Your task to perform on an android device: turn on javascript in the chrome app Image 0: 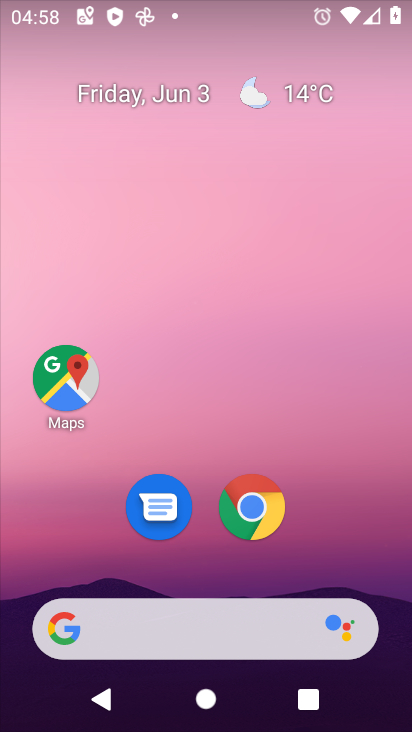
Step 0: click (246, 520)
Your task to perform on an android device: turn on javascript in the chrome app Image 1: 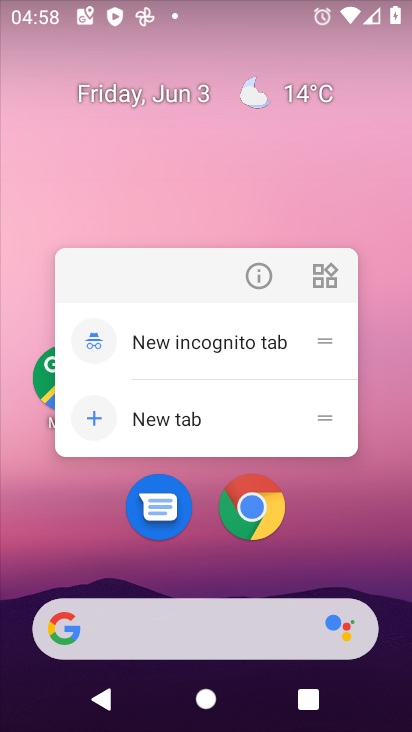
Step 1: click (250, 494)
Your task to perform on an android device: turn on javascript in the chrome app Image 2: 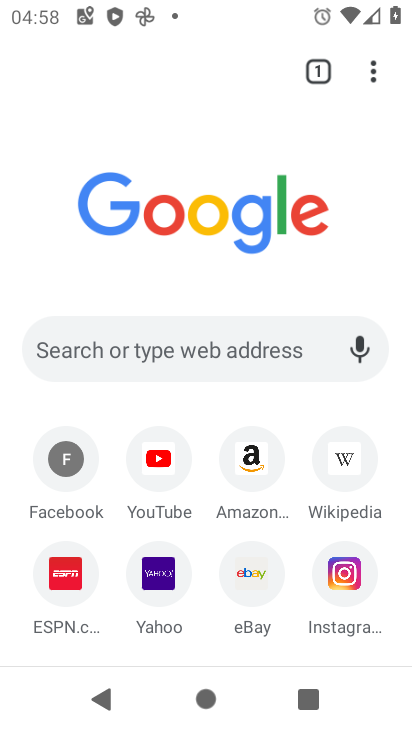
Step 2: drag from (371, 74) to (202, 505)
Your task to perform on an android device: turn on javascript in the chrome app Image 3: 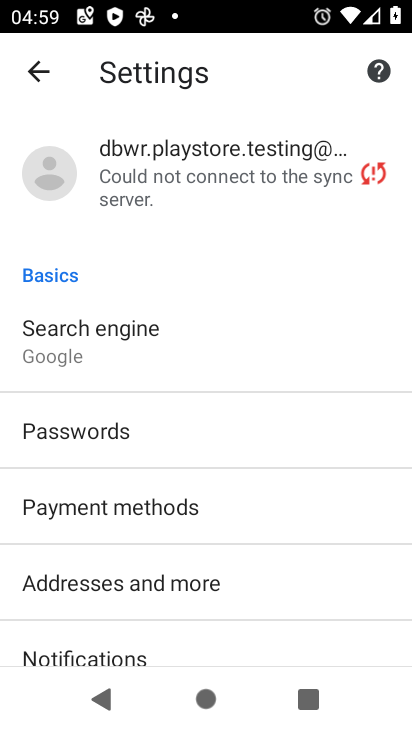
Step 3: drag from (290, 649) to (274, 237)
Your task to perform on an android device: turn on javascript in the chrome app Image 4: 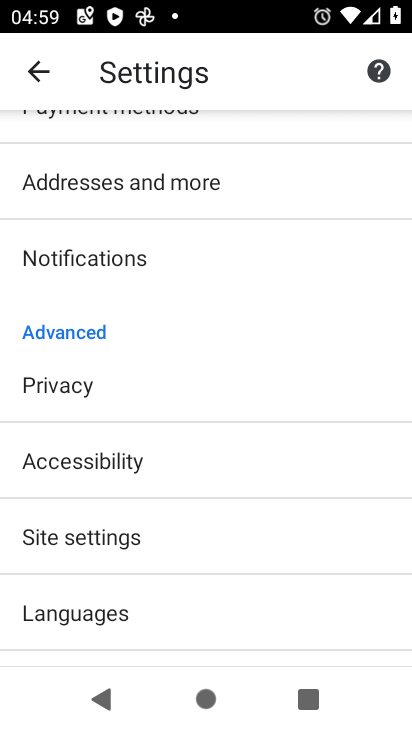
Step 4: click (103, 541)
Your task to perform on an android device: turn on javascript in the chrome app Image 5: 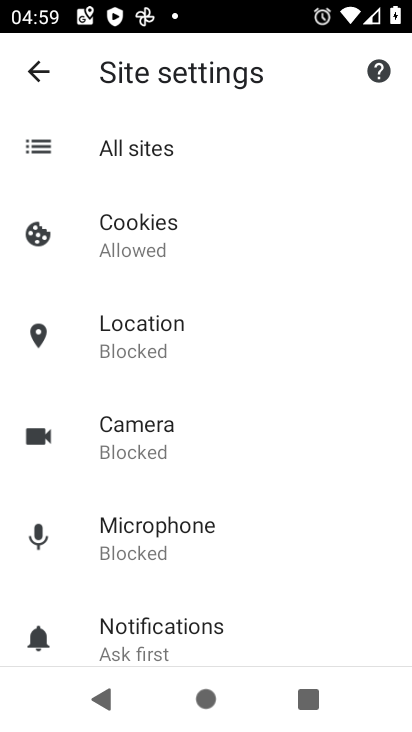
Step 5: drag from (321, 623) to (302, 308)
Your task to perform on an android device: turn on javascript in the chrome app Image 6: 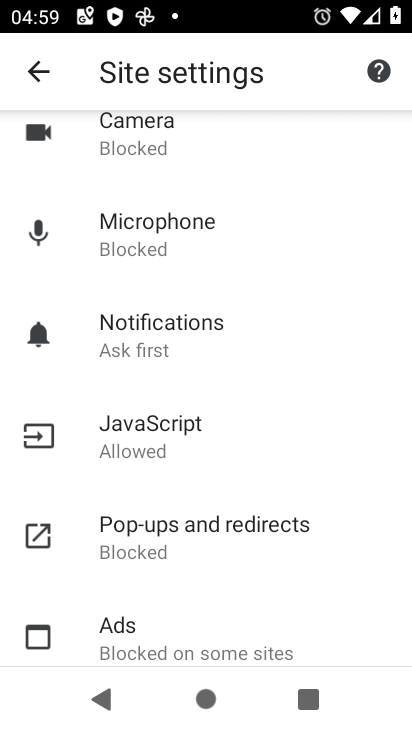
Step 6: click (191, 438)
Your task to perform on an android device: turn on javascript in the chrome app Image 7: 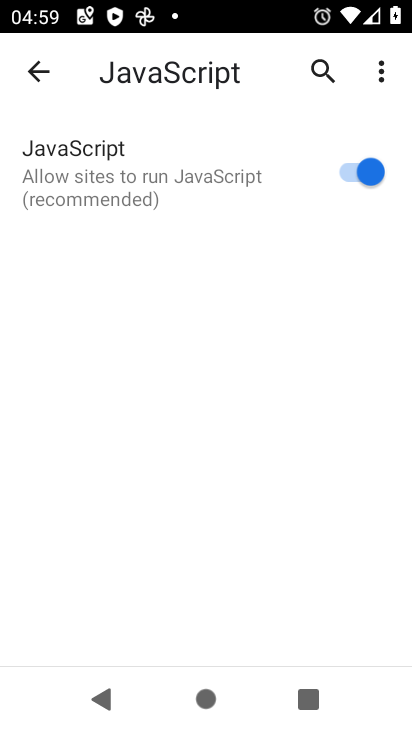
Step 7: task complete